Your task to perform on an android device: choose inbox layout in the gmail app Image 0: 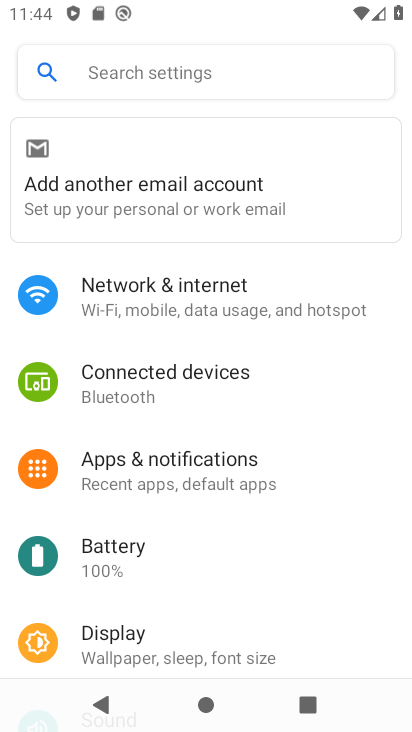
Step 0: click (276, 549)
Your task to perform on an android device: choose inbox layout in the gmail app Image 1: 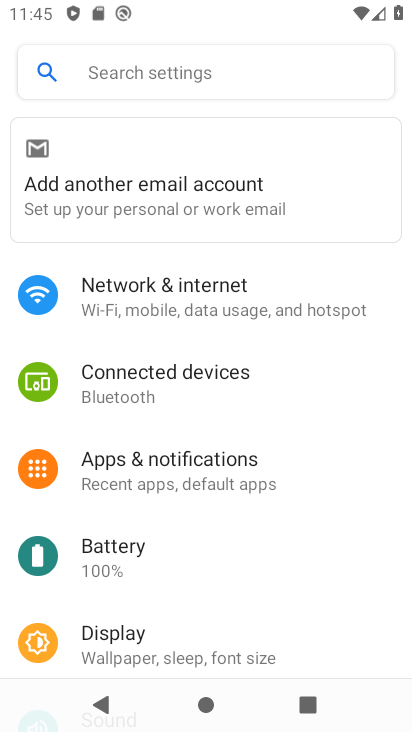
Step 1: drag from (289, 588) to (344, 402)
Your task to perform on an android device: choose inbox layout in the gmail app Image 2: 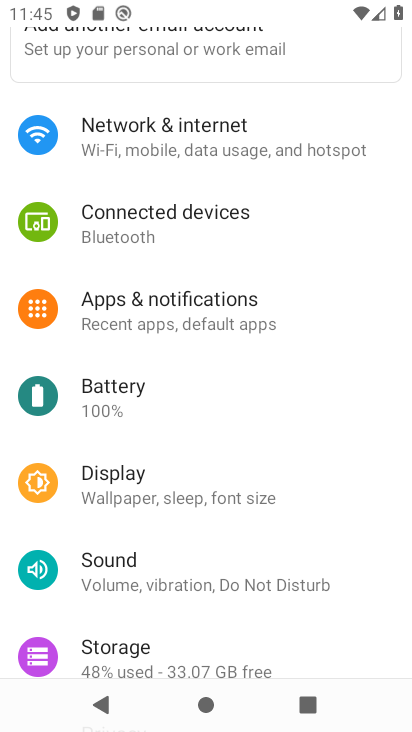
Step 2: drag from (132, 651) to (289, 198)
Your task to perform on an android device: choose inbox layout in the gmail app Image 3: 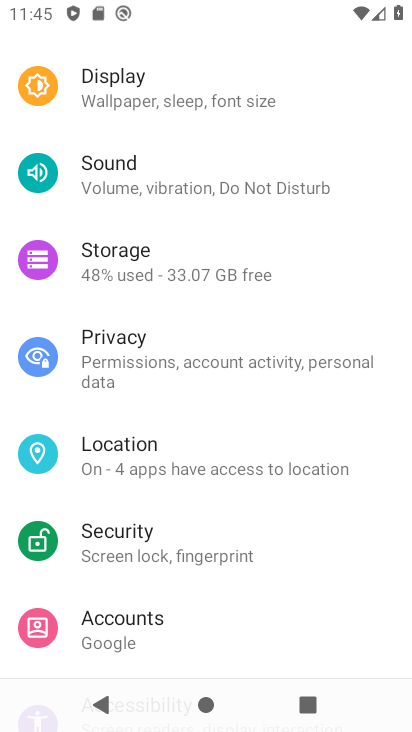
Step 3: drag from (238, 278) to (269, 705)
Your task to perform on an android device: choose inbox layout in the gmail app Image 4: 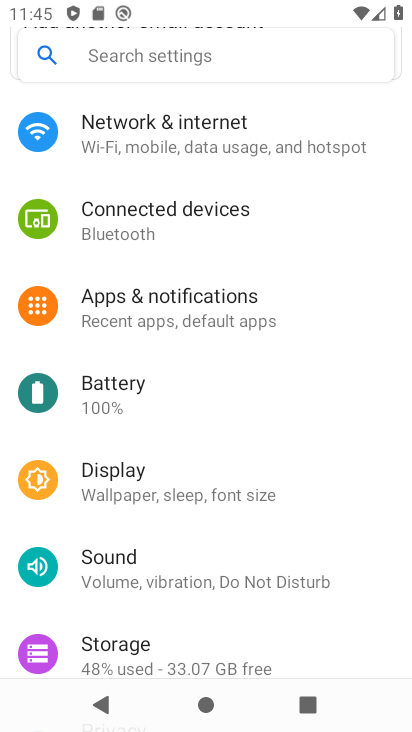
Step 4: drag from (179, 199) to (230, 725)
Your task to perform on an android device: choose inbox layout in the gmail app Image 5: 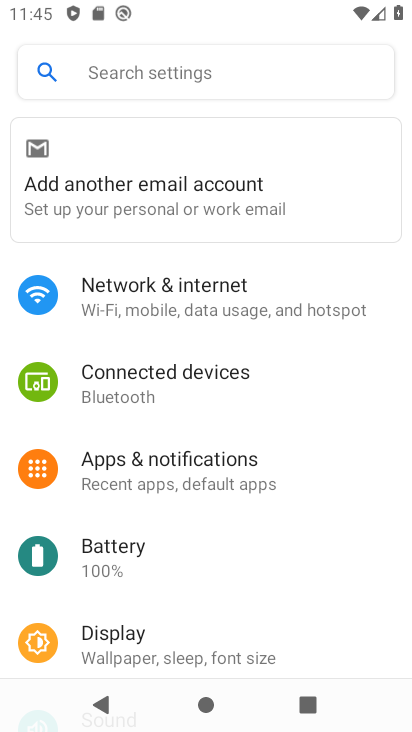
Step 5: click (157, 298)
Your task to perform on an android device: choose inbox layout in the gmail app Image 6: 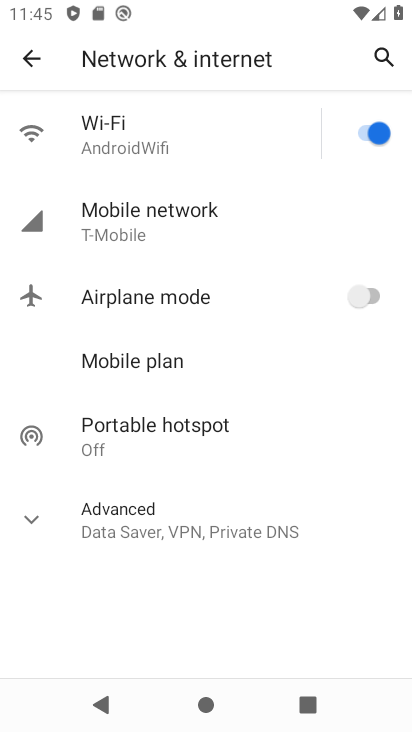
Step 6: press home button
Your task to perform on an android device: choose inbox layout in the gmail app Image 7: 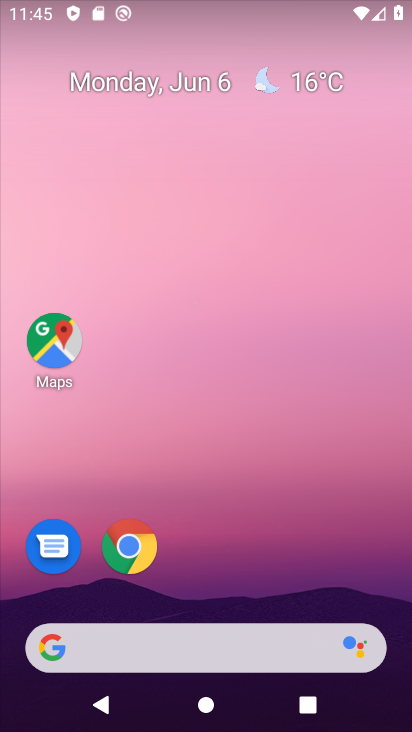
Step 7: drag from (222, 559) to (324, 146)
Your task to perform on an android device: choose inbox layout in the gmail app Image 8: 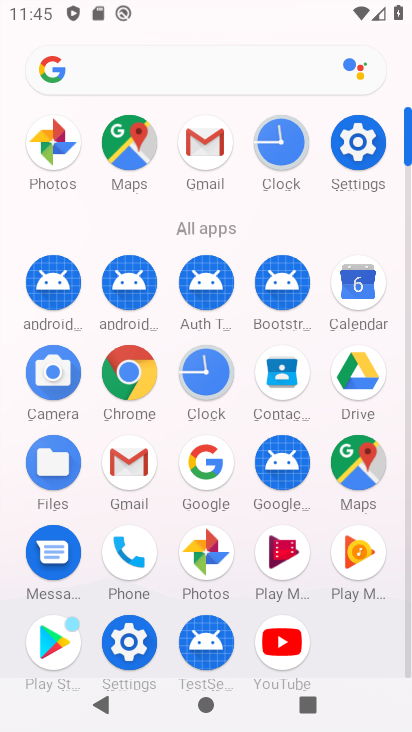
Step 8: click (121, 455)
Your task to perform on an android device: choose inbox layout in the gmail app Image 9: 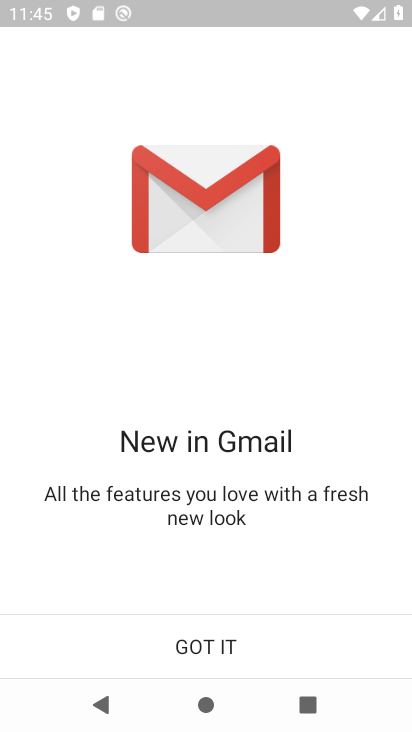
Step 9: click (202, 643)
Your task to perform on an android device: choose inbox layout in the gmail app Image 10: 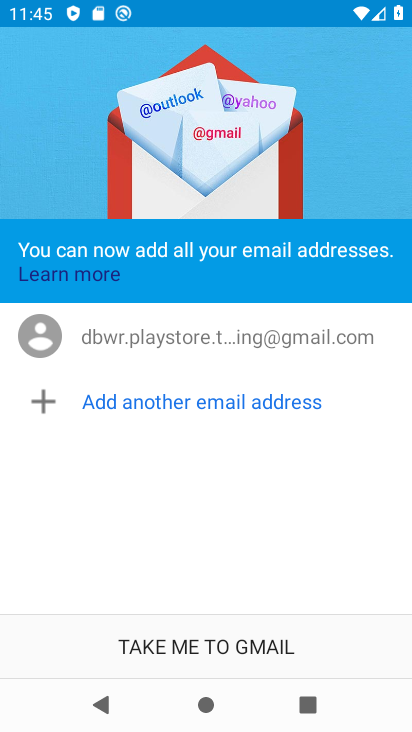
Step 10: click (248, 650)
Your task to perform on an android device: choose inbox layout in the gmail app Image 11: 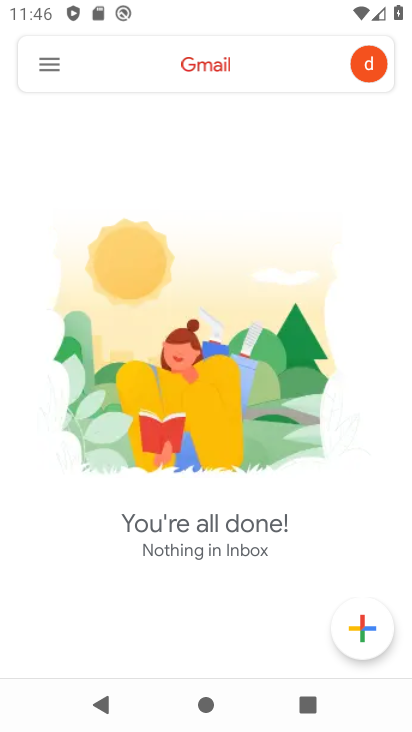
Step 11: click (61, 72)
Your task to perform on an android device: choose inbox layout in the gmail app Image 12: 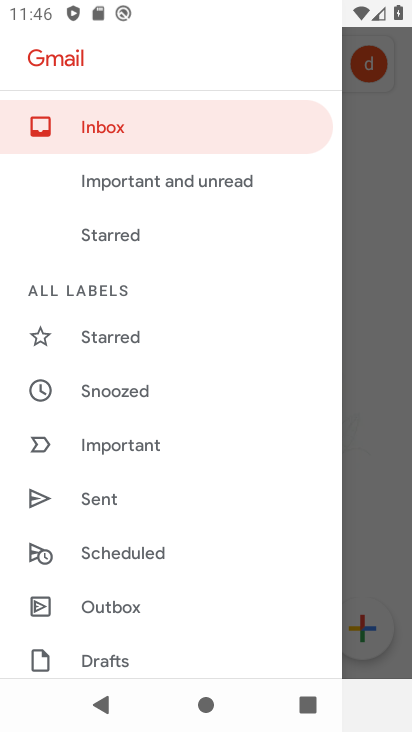
Step 12: click (98, 139)
Your task to perform on an android device: choose inbox layout in the gmail app Image 13: 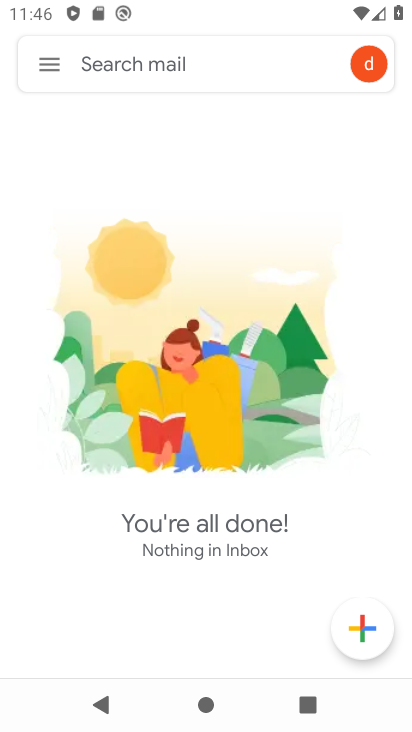
Step 13: click (37, 63)
Your task to perform on an android device: choose inbox layout in the gmail app Image 14: 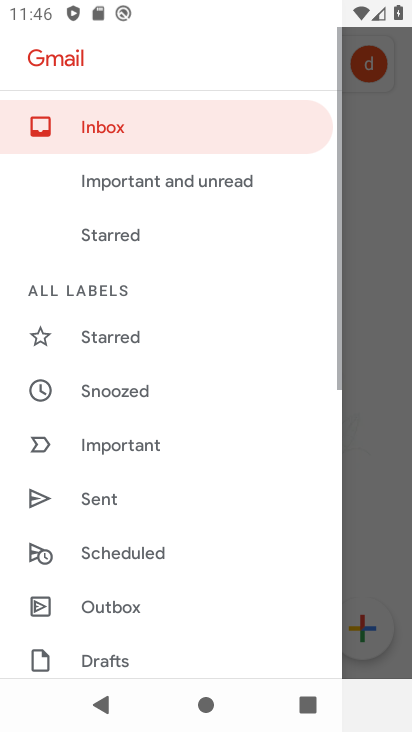
Step 14: click (142, 131)
Your task to perform on an android device: choose inbox layout in the gmail app Image 15: 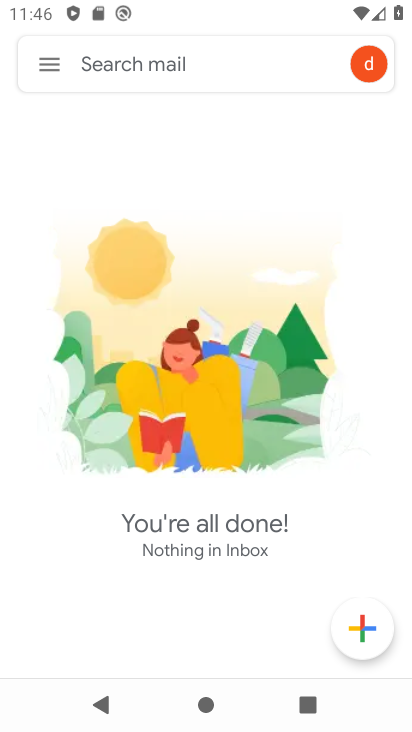
Step 15: task complete